Your task to perform on an android device: clear history in the chrome app Image 0: 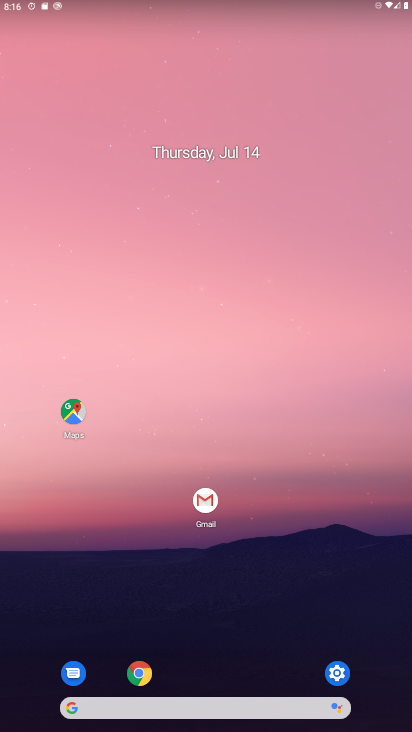
Step 0: drag from (278, 699) to (191, 96)
Your task to perform on an android device: clear history in the chrome app Image 1: 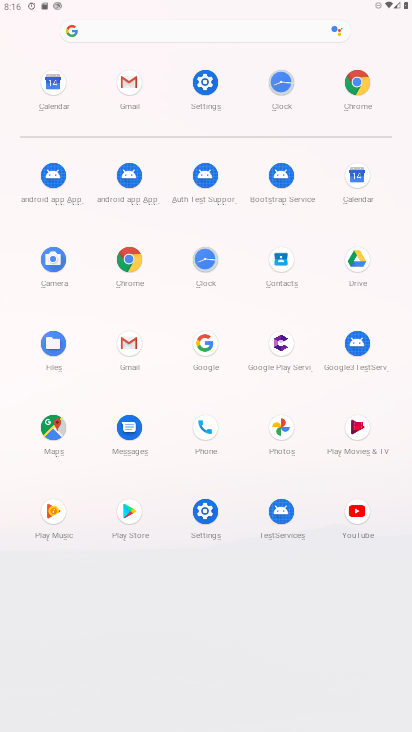
Step 1: click (122, 268)
Your task to perform on an android device: clear history in the chrome app Image 2: 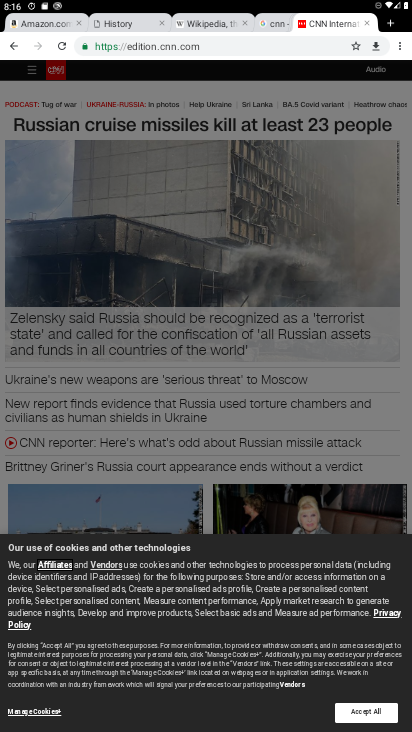
Step 2: click (401, 49)
Your task to perform on an android device: clear history in the chrome app Image 3: 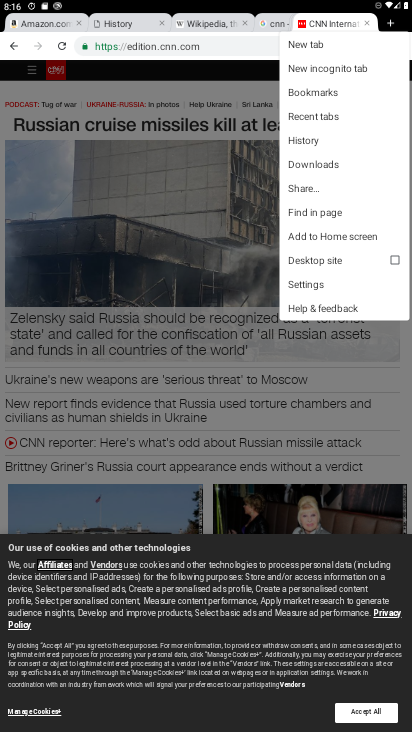
Step 3: click (301, 143)
Your task to perform on an android device: clear history in the chrome app Image 4: 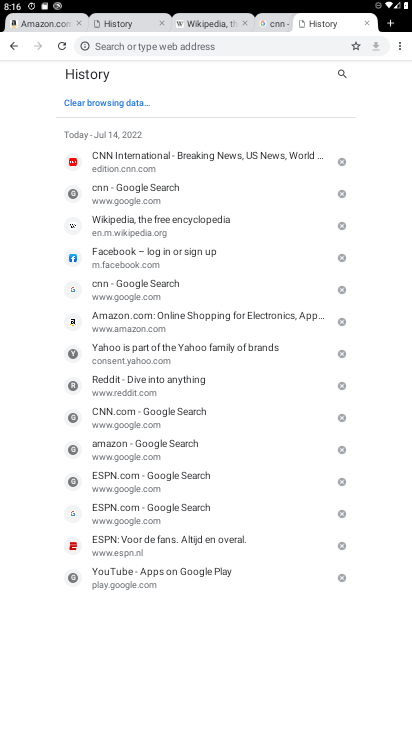
Step 4: click (128, 103)
Your task to perform on an android device: clear history in the chrome app Image 5: 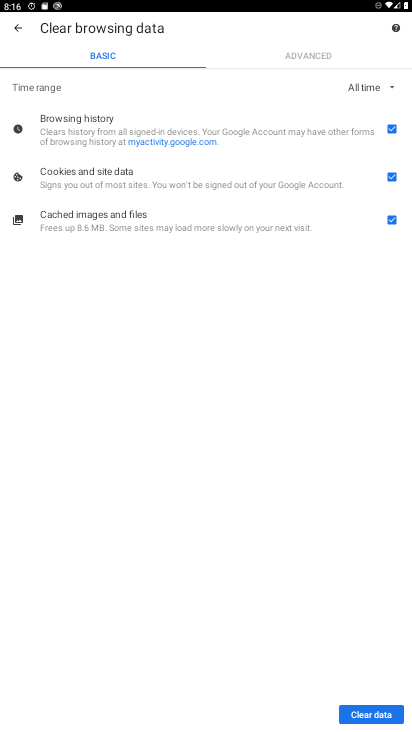
Step 5: click (374, 708)
Your task to perform on an android device: clear history in the chrome app Image 6: 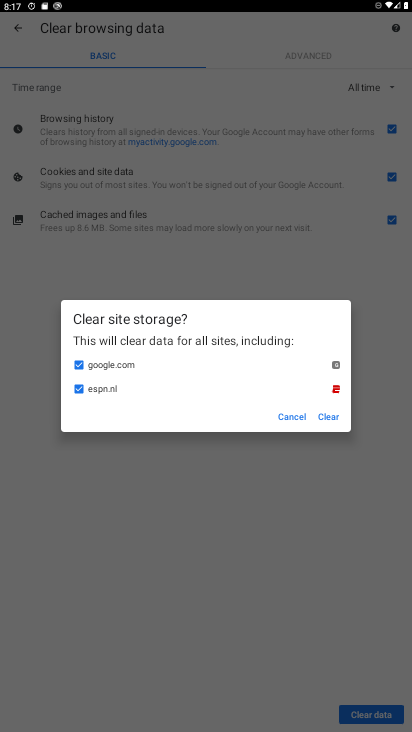
Step 6: click (325, 417)
Your task to perform on an android device: clear history in the chrome app Image 7: 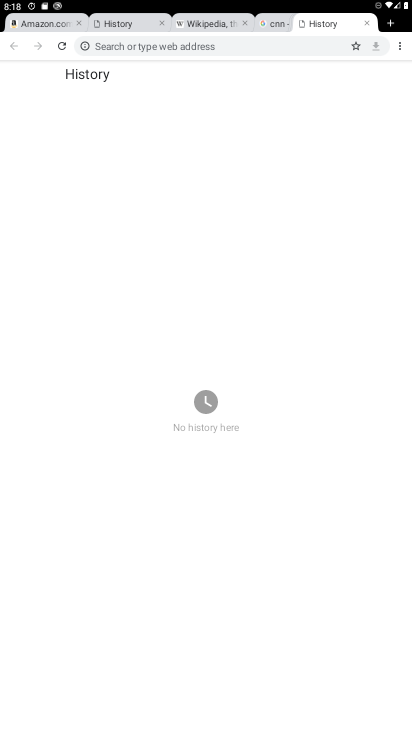
Step 7: task complete